Your task to perform on an android device: Go to Google maps Image 0: 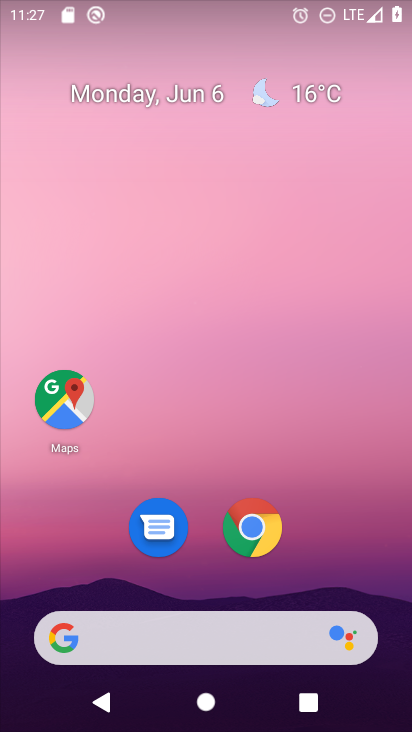
Step 0: drag from (362, 565) to (365, 131)
Your task to perform on an android device: Go to Google maps Image 1: 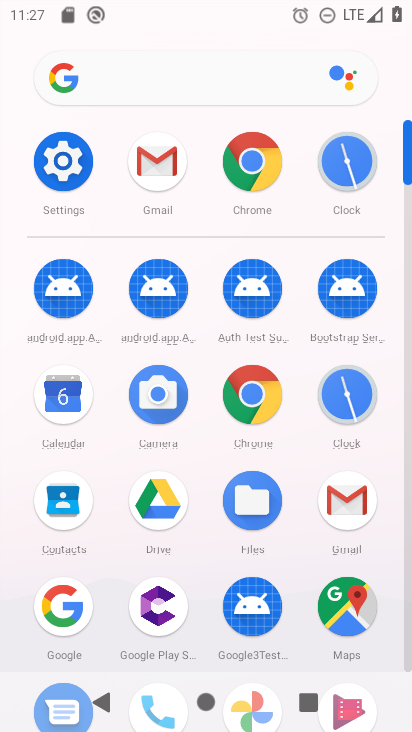
Step 1: click (360, 593)
Your task to perform on an android device: Go to Google maps Image 2: 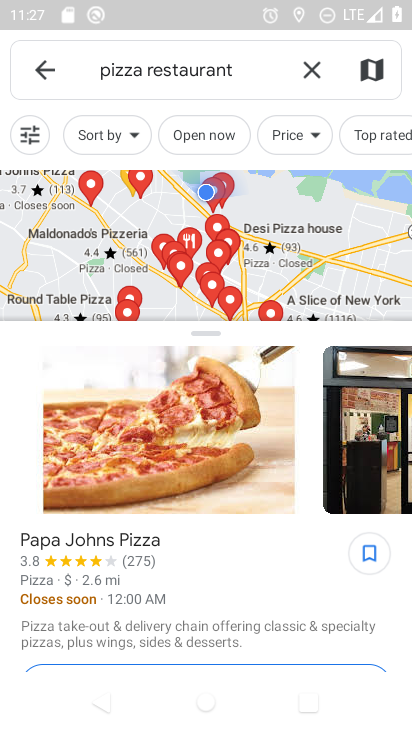
Step 2: task complete